Your task to perform on an android device: Toggle the flashlight Image 0: 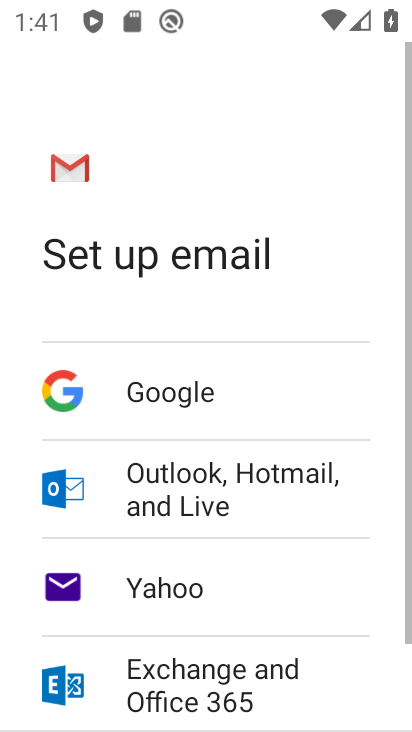
Step 0: press home button
Your task to perform on an android device: Toggle the flashlight Image 1: 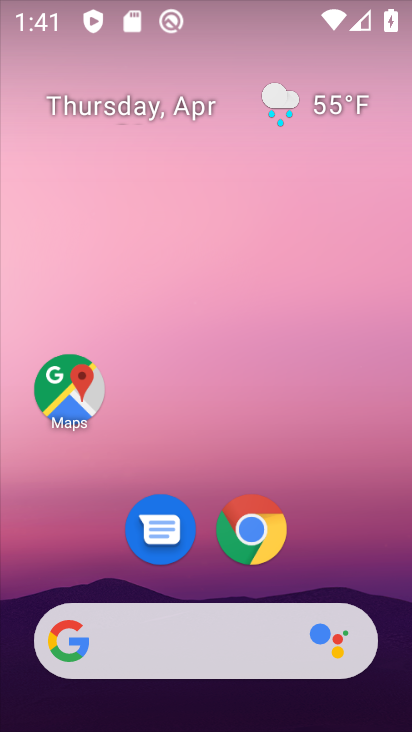
Step 1: drag from (329, 499) to (281, 179)
Your task to perform on an android device: Toggle the flashlight Image 2: 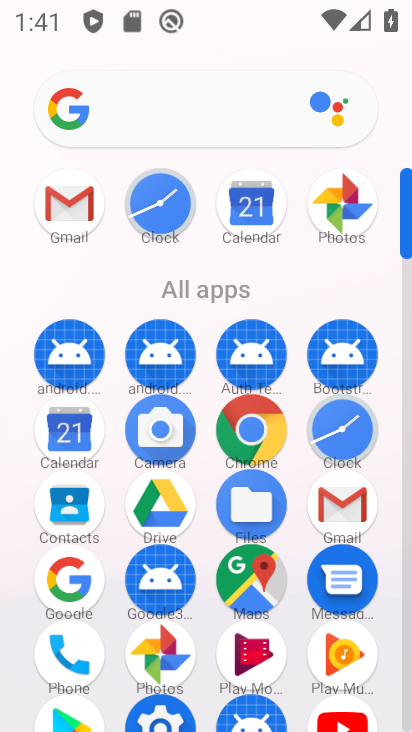
Step 2: drag from (113, 554) to (98, 287)
Your task to perform on an android device: Toggle the flashlight Image 3: 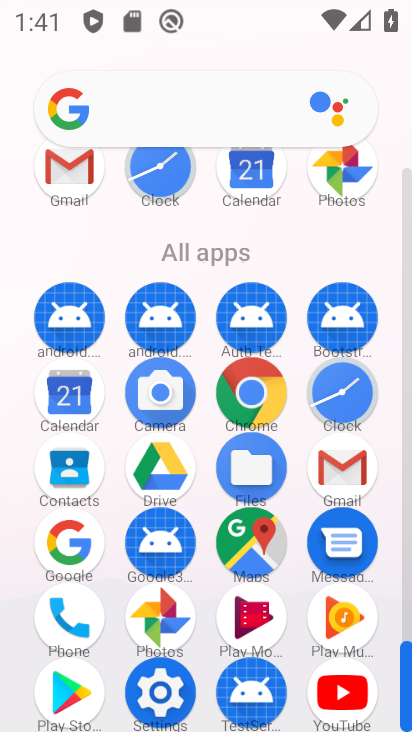
Step 3: click (170, 682)
Your task to perform on an android device: Toggle the flashlight Image 4: 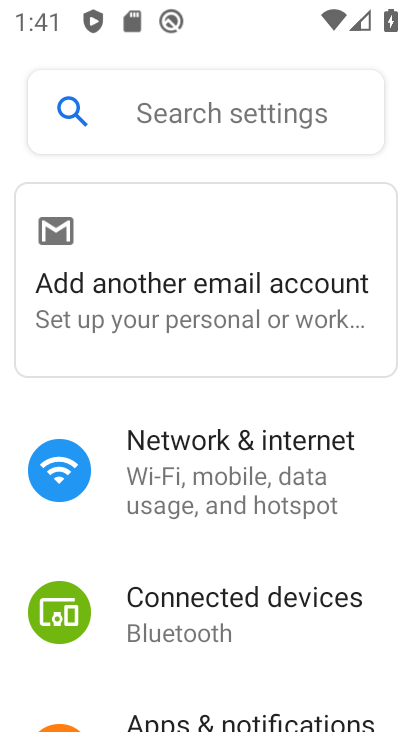
Step 4: task complete